Your task to perform on an android device: Open accessibility settings Image 0: 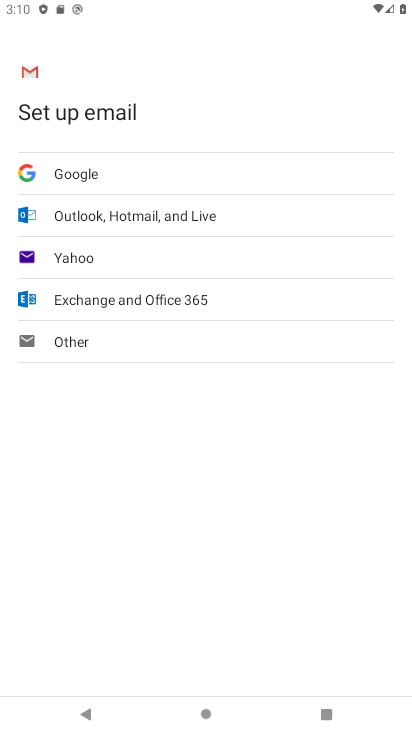
Step 0: press home button
Your task to perform on an android device: Open accessibility settings Image 1: 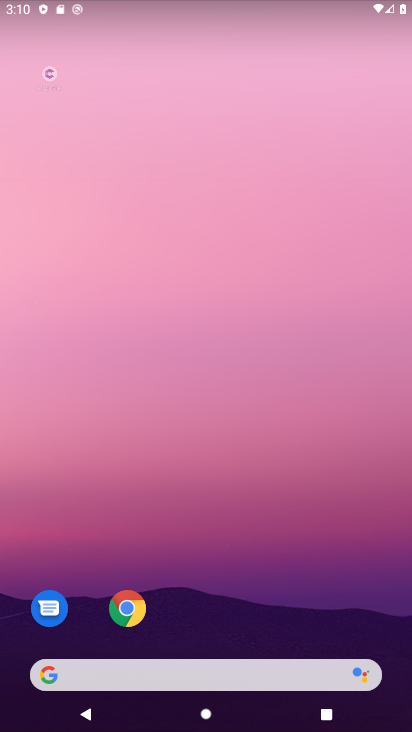
Step 1: drag from (240, 716) to (240, 279)
Your task to perform on an android device: Open accessibility settings Image 2: 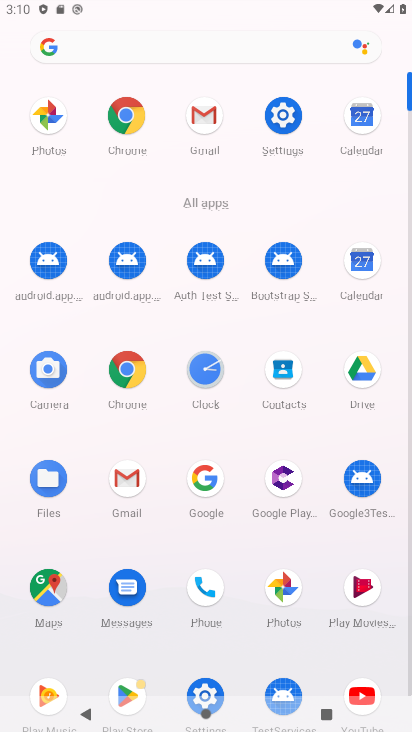
Step 2: click (281, 122)
Your task to perform on an android device: Open accessibility settings Image 3: 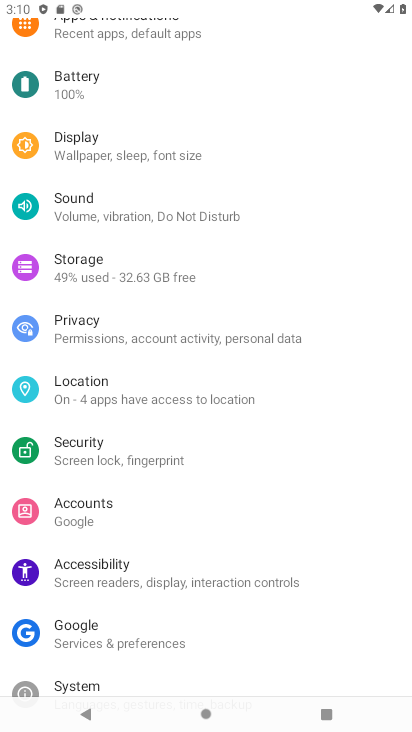
Step 3: click (101, 559)
Your task to perform on an android device: Open accessibility settings Image 4: 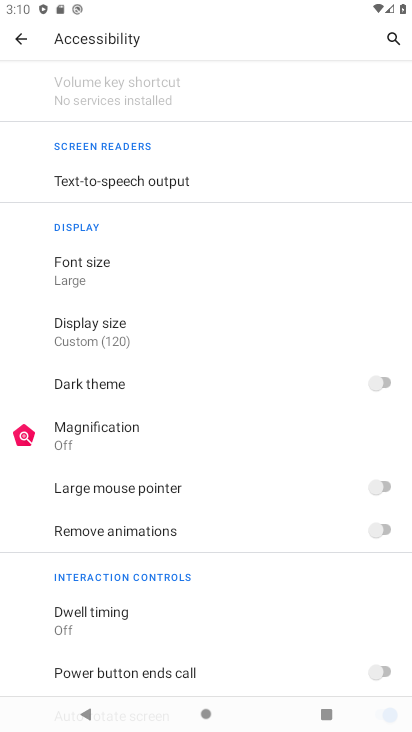
Step 4: task complete